Your task to perform on an android device: Is it going to rain this weekend? Image 0: 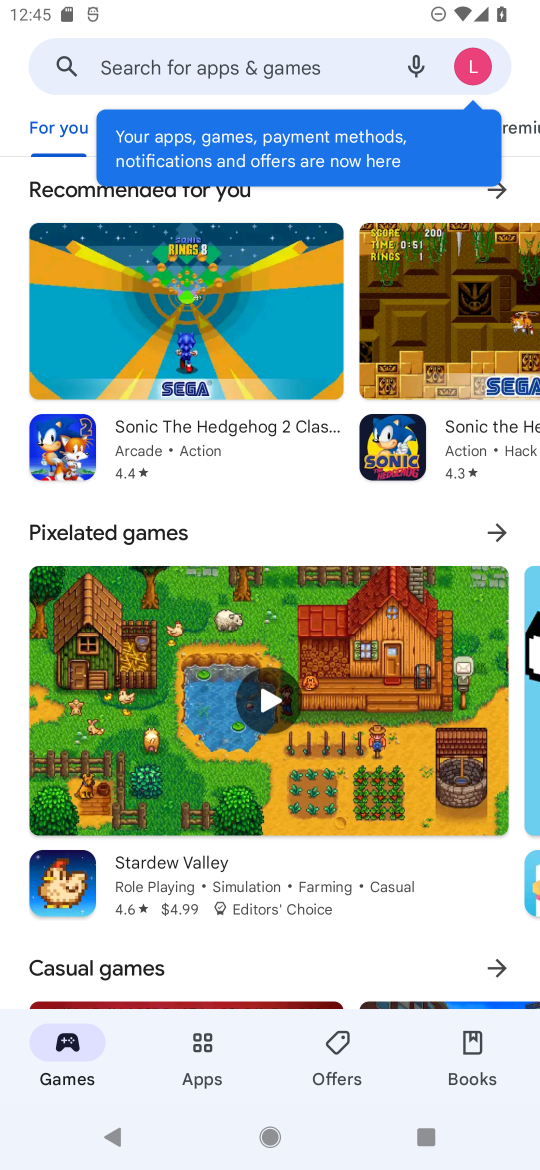
Step 0: press home button
Your task to perform on an android device: Is it going to rain this weekend? Image 1: 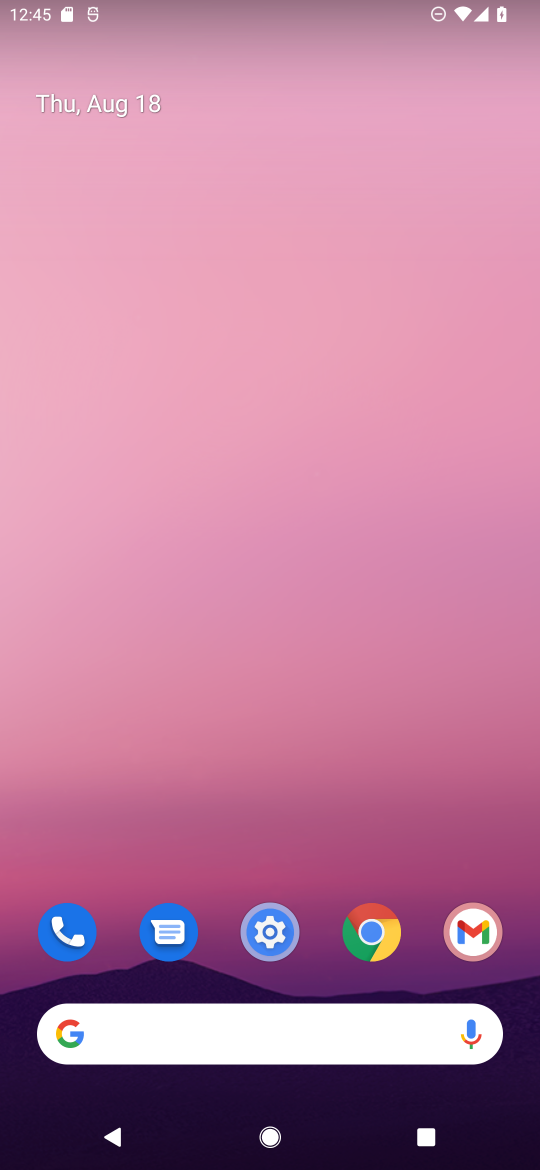
Step 1: click (142, 1022)
Your task to perform on an android device: Is it going to rain this weekend? Image 2: 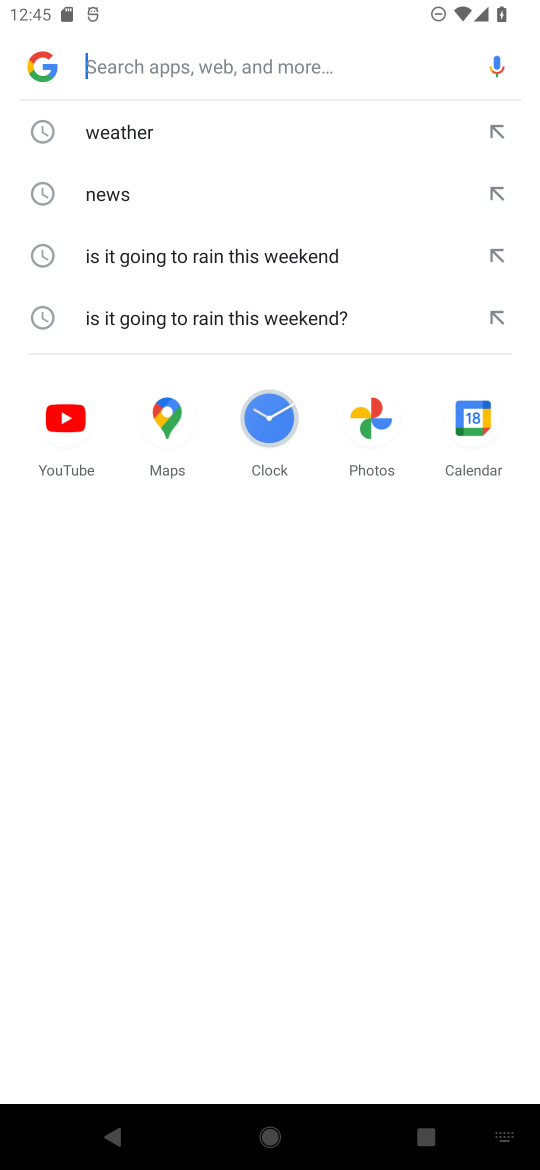
Step 2: click (103, 125)
Your task to perform on an android device: Is it going to rain this weekend? Image 3: 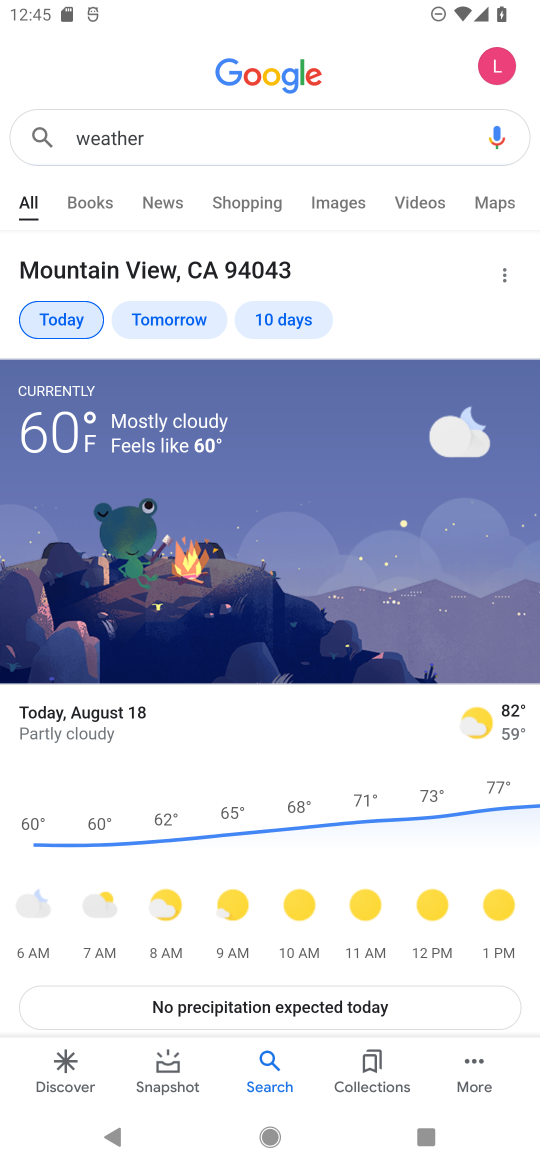
Step 3: click (301, 314)
Your task to perform on an android device: Is it going to rain this weekend? Image 4: 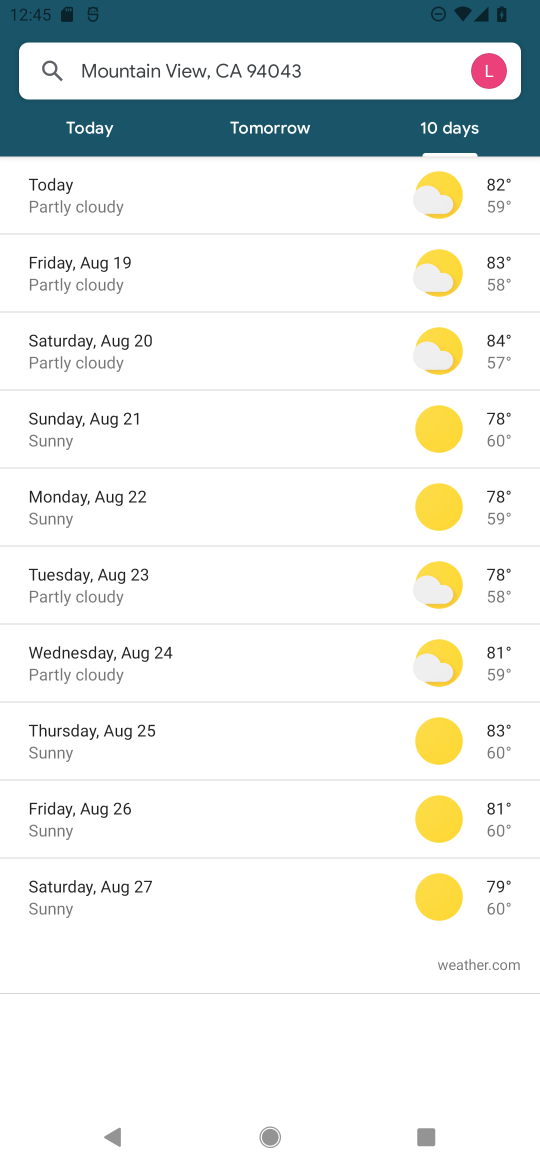
Step 4: task complete